Your task to perform on an android device: Search for Mexican restaurants on Maps Image 0: 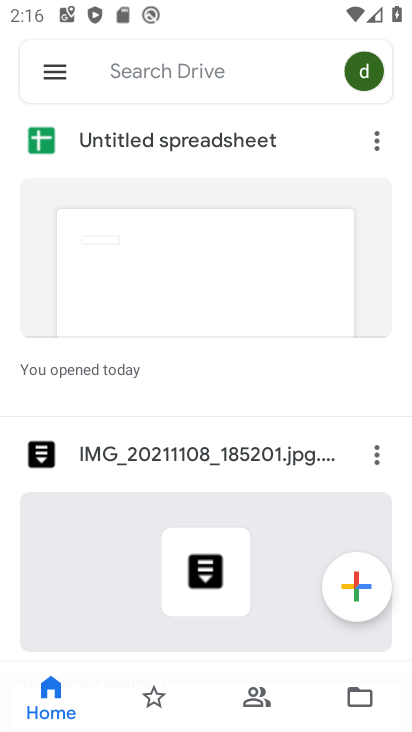
Step 0: press home button
Your task to perform on an android device: Search for Mexican restaurants on Maps Image 1: 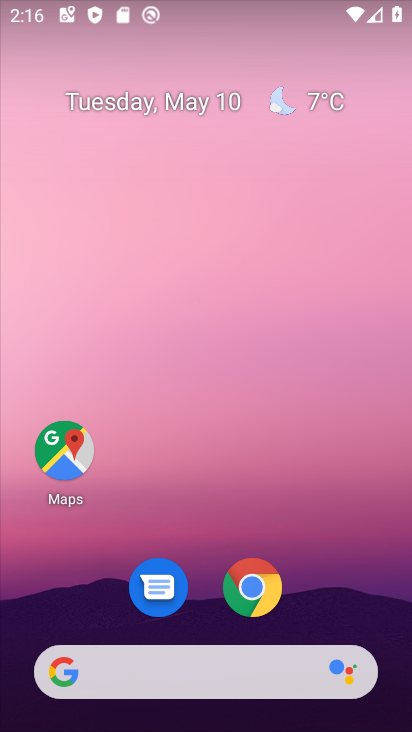
Step 1: drag from (331, 585) to (266, 129)
Your task to perform on an android device: Search for Mexican restaurants on Maps Image 2: 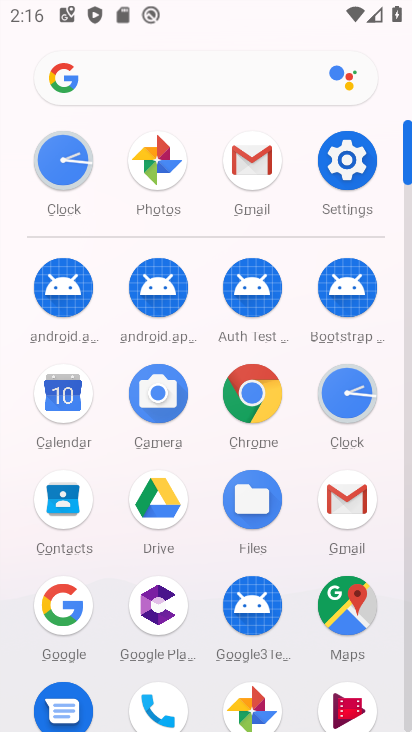
Step 2: click (350, 612)
Your task to perform on an android device: Search for Mexican restaurants on Maps Image 3: 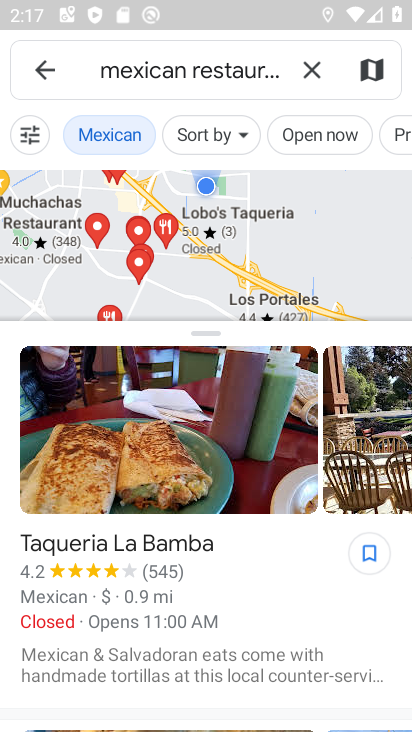
Step 3: task complete